Your task to perform on an android device: Open calendar and show me the fourth week of next month Image 0: 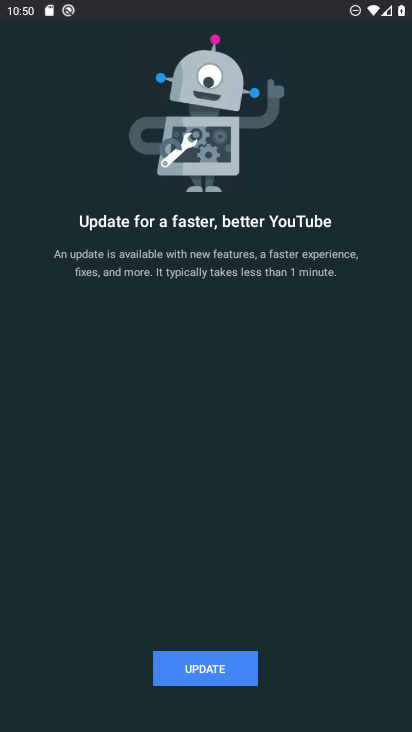
Step 0: press home button
Your task to perform on an android device: Open calendar and show me the fourth week of next month Image 1: 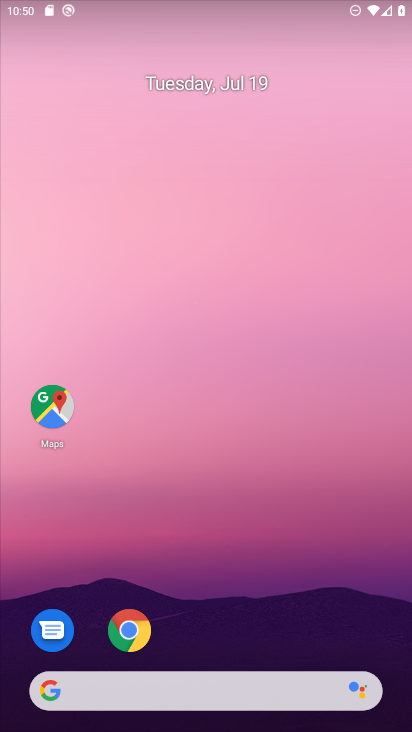
Step 1: drag from (244, 621) to (197, 116)
Your task to perform on an android device: Open calendar and show me the fourth week of next month Image 2: 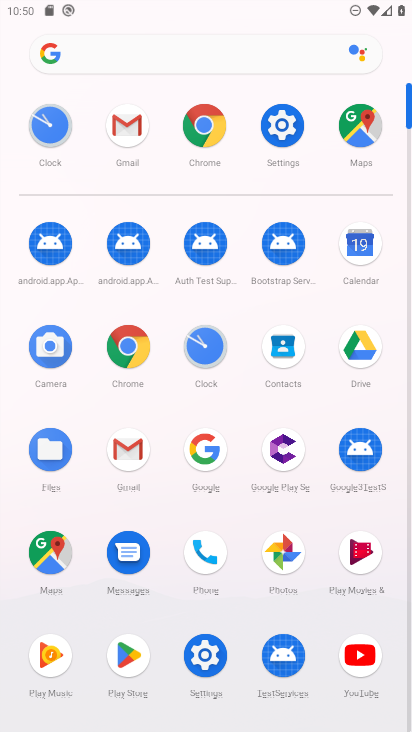
Step 2: drag from (353, 251) to (404, 250)
Your task to perform on an android device: Open calendar and show me the fourth week of next month Image 3: 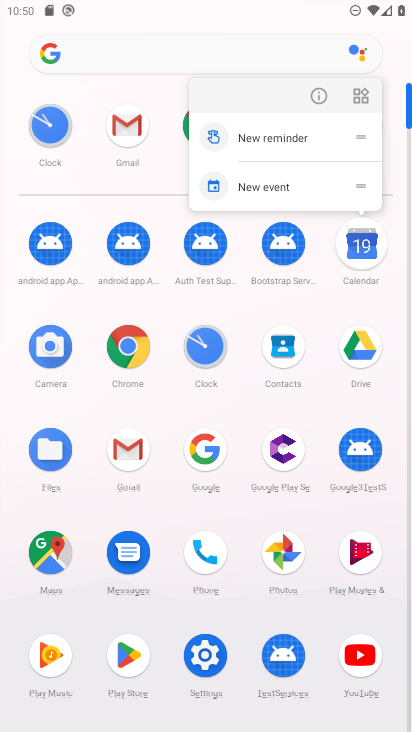
Step 3: click (376, 248)
Your task to perform on an android device: Open calendar and show me the fourth week of next month Image 4: 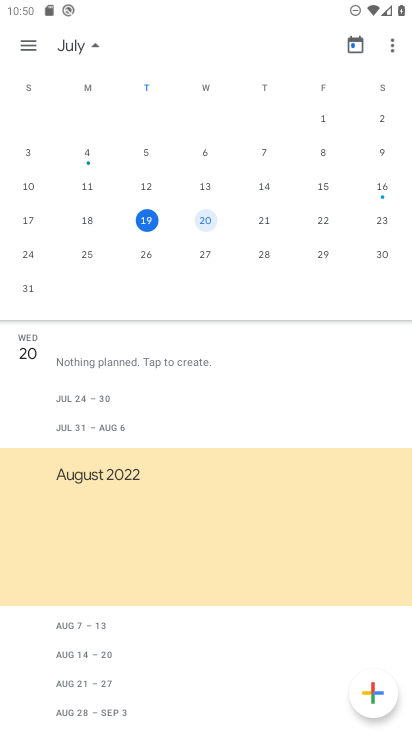
Step 4: drag from (355, 158) to (16, 163)
Your task to perform on an android device: Open calendar and show me the fourth week of next month Image 5: 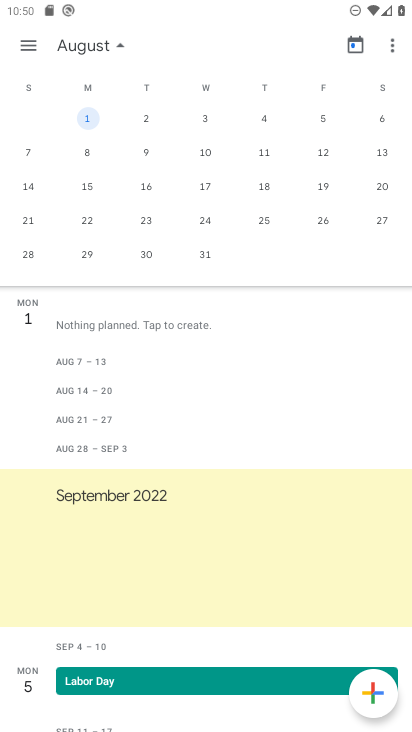
Step 5: click (25, 208)
Your task to perform on an android device: Open calendar and show me the fourth week of next month Image 6: 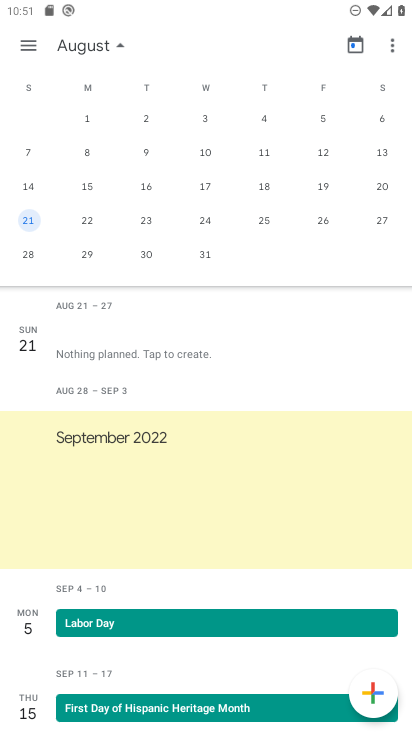
Step 6: task complete